Your task to perform on an android device: change notification settings in the gmail app Image 0: 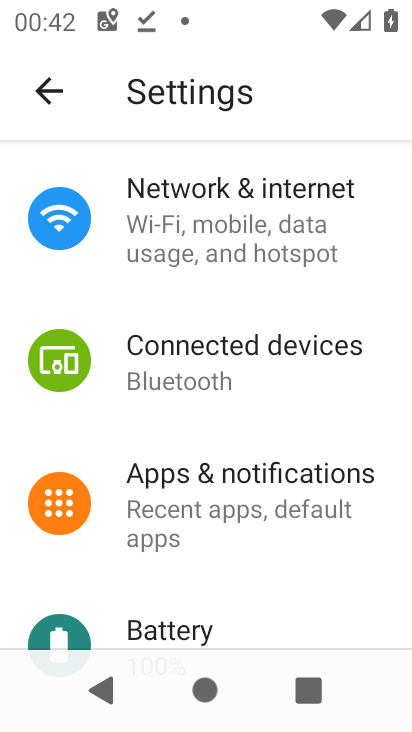
Step 0: press home button
Your task to perform on an android device: change notification settings in the gmail app Image 1: 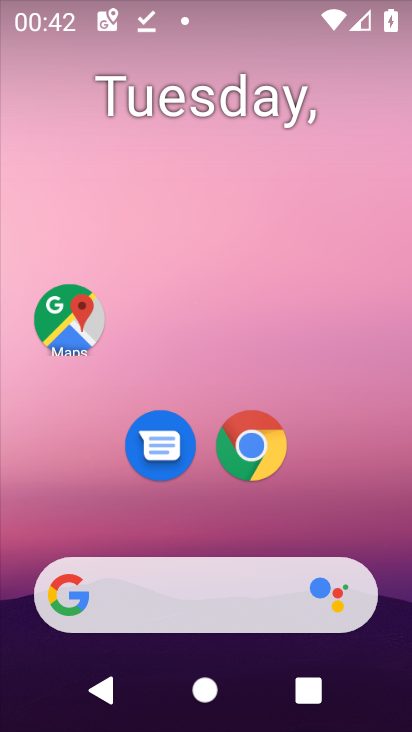
Step 1: drag from (333, 477) to (214, 29)
Your task to perform on an android device: change notification settings in the gmail app Image 2: 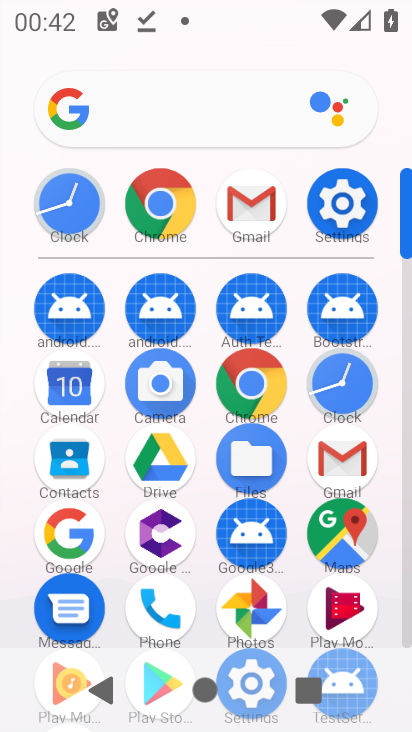
Step 2: click (250, 211)
Your task to perform on an android device: change notification settings in the gmail app Image 3: 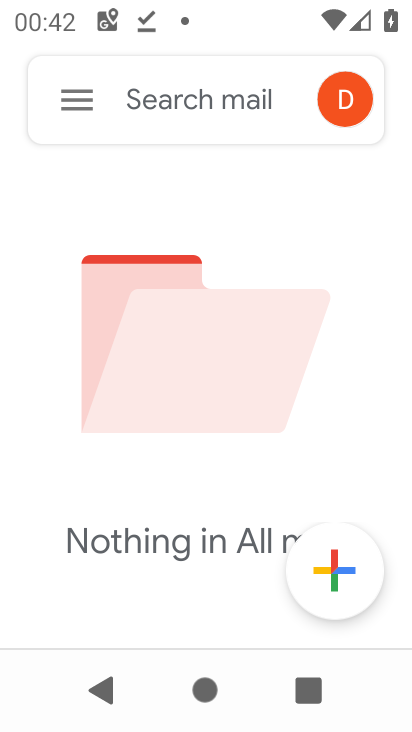
Step 3: click (78, 101)
Your task to perform on an android device: change notification settings in the gmail app Image 4: 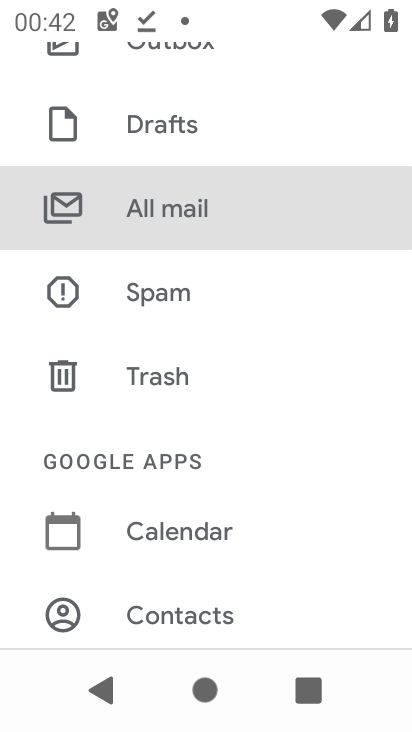
Step 4: drag from (248, 512) to (203, 218)
Your task to perform on an android device: change notification settings in the gmail app Image 5: 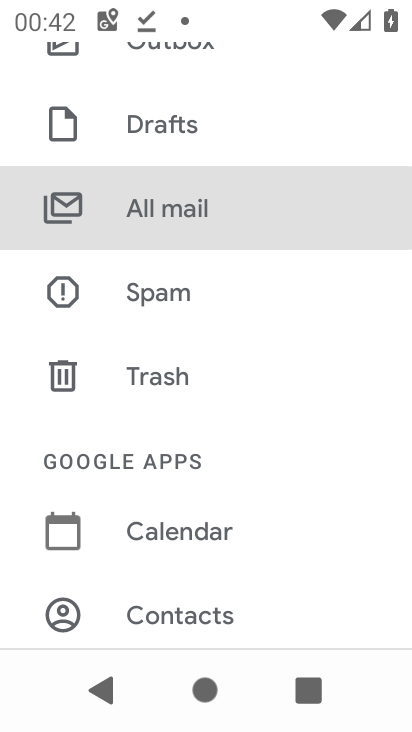
Step 5: drag from (162, 579) to (141, 315)
Your task to perform on an android device: change notification settings in the gmail app Image 6: 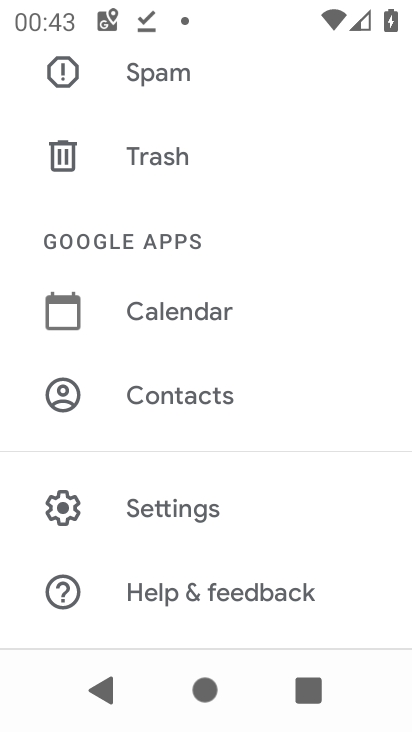
Step 6: click (155, 511)
Your task to perform on an android device: change notification settings in the gmail app Image 7: 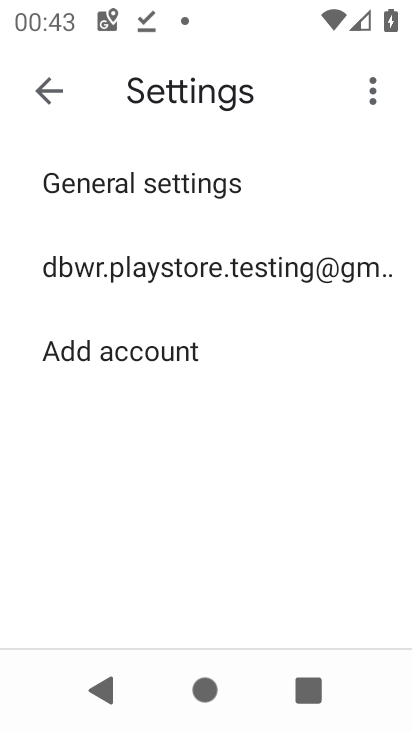
Step 7: click (111, 182)
Your task to perform on an android device: change notification settings in the gmail app Image 8: 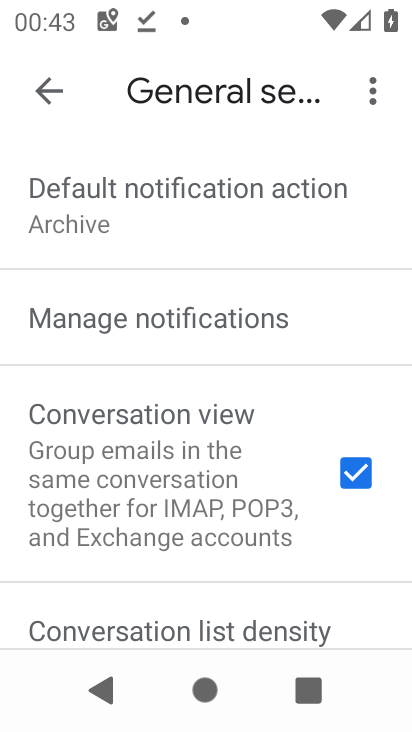
Step 8: click (146, 301)
Your task to perform on an android device: change notification settings in the gmail app Image 9: 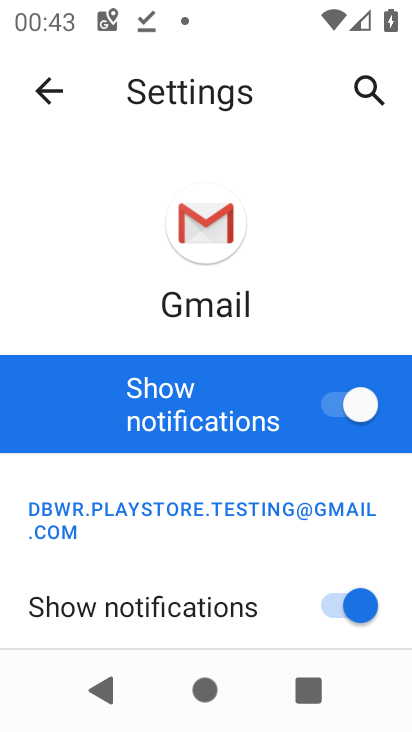
Step 9: click (368, 403)
Your task to perform on an android device: change notification settings in the gmail app Image 10: 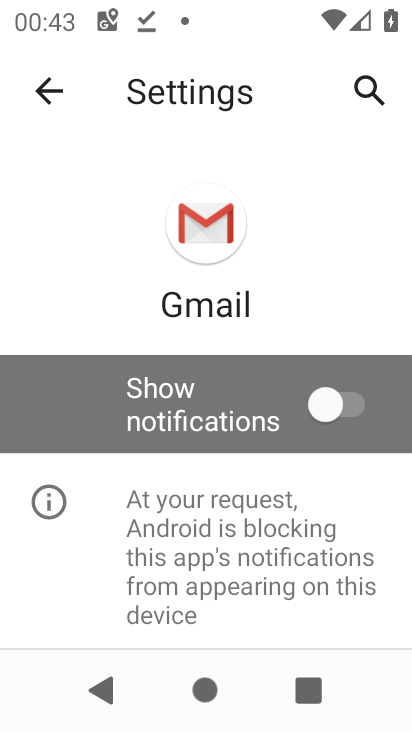
Step 10: task complete